Your task to perform on an android device: turn on airplane mode Image 0: 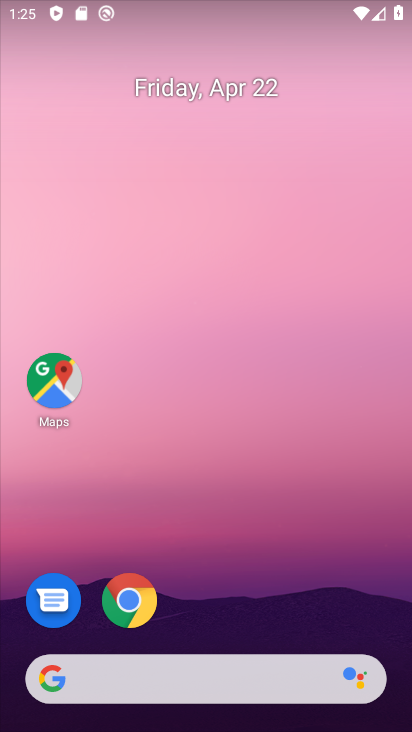
Step 0: drag from (226, 651) to (326, 195)
Your task to perform on an android device: turn on airplane mode Image 1: 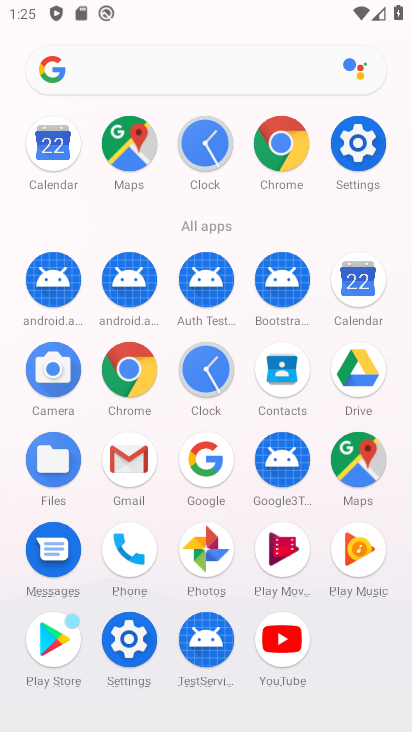
Step 1: click (137, 654)
Your task to perform on an android device: turn on airplane mode Image 2: 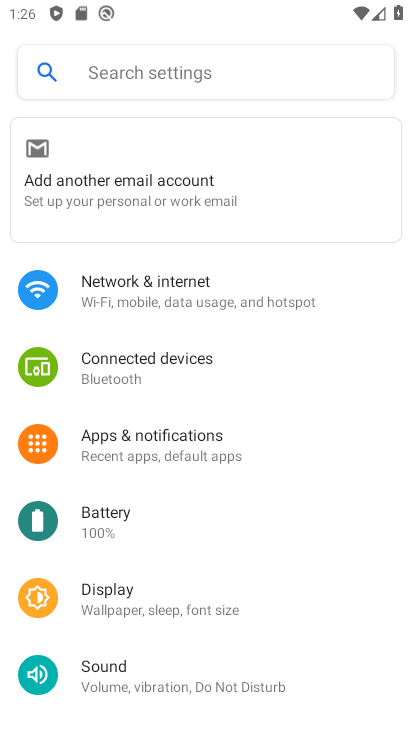
Step 2: click (212, 285)
Your task to perform on an android device: turn on airplane mode Image 3: 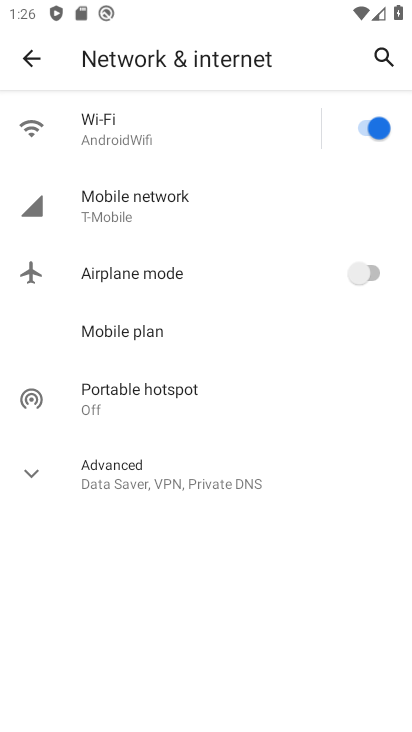
Step 3: click (388, 269)
Your task to perform on an android device: turn on airplane mode Image 4: 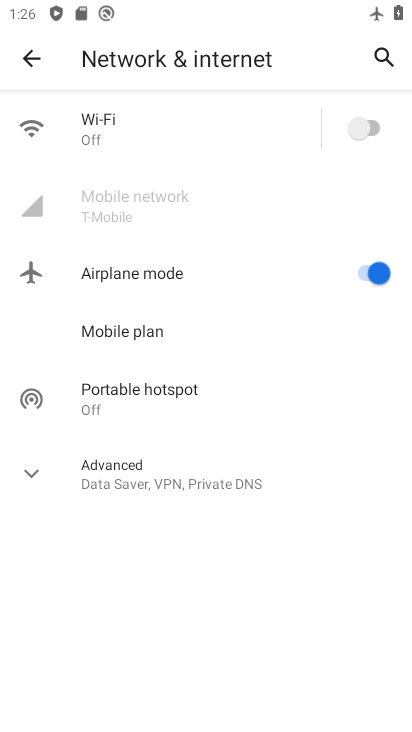
Step 4: task complete